Your task to perform on an android device: Open CNN.com Image 0: 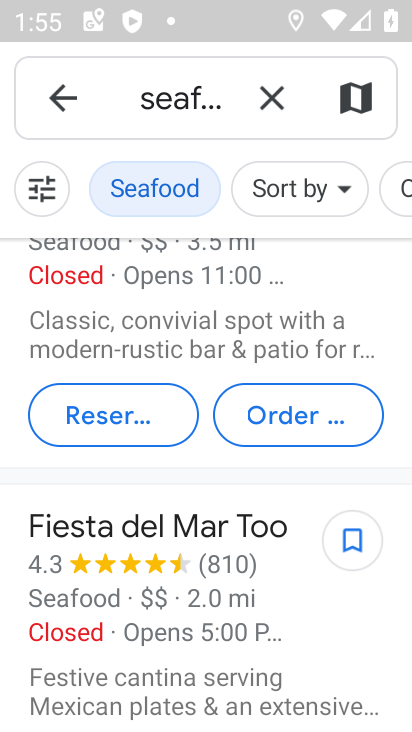
Step 0: press home button
Your task to perform on an android device: Open CNN.com Image 1: 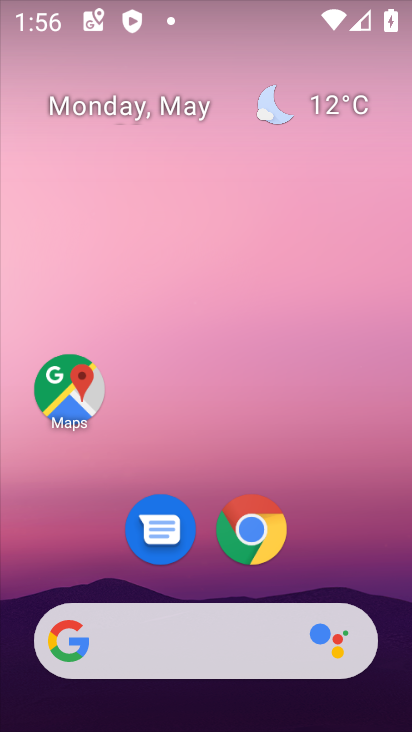
Step 1: click (253, 531)
Your task to perform on an android device: Open CNN.com Image 2: 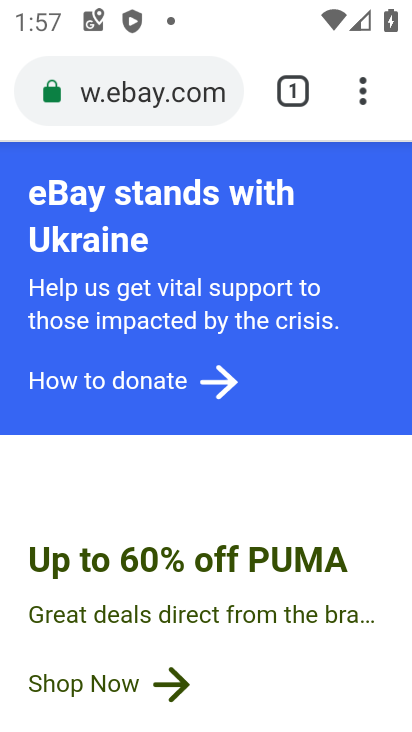
Step 2: click (228, 83)
Your task to perform on an android device: Open CNN.com Image 3: 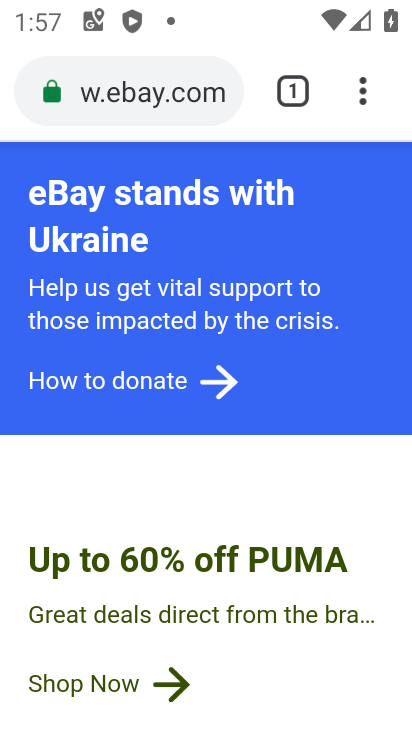
Step 3: click (227, 93)
Your task to perform on an android device: Open CNN.com Image 4: 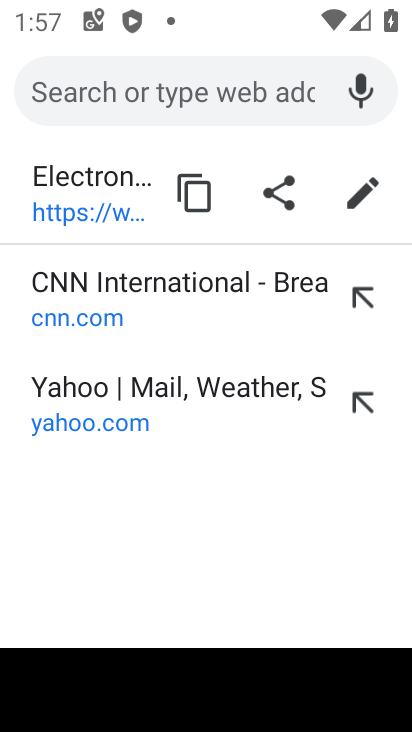
Step 4: type "cnn.com"
Your task to perform on an android device: Open CNN.com Image 5: 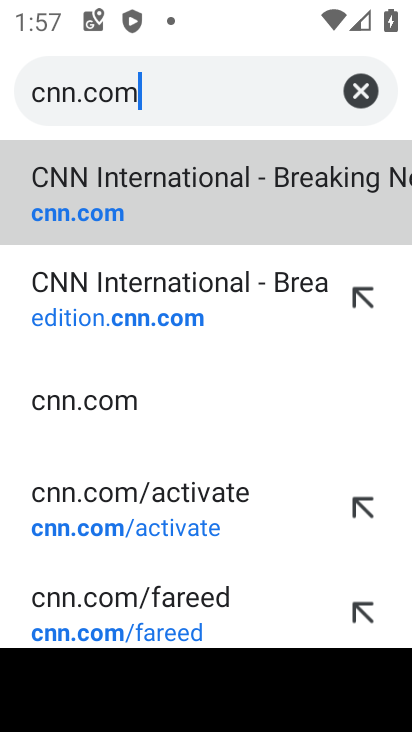
Step 5: click (72, 175)
Your task to perform on an android device: Open CNN.com Image 6: 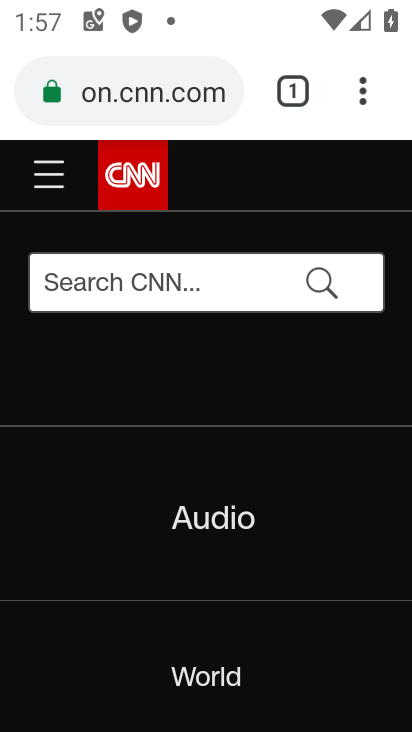
Step 6: task complete